Your task to perform on an android device: Open calendar and show me the fourth week of next month Image 0: 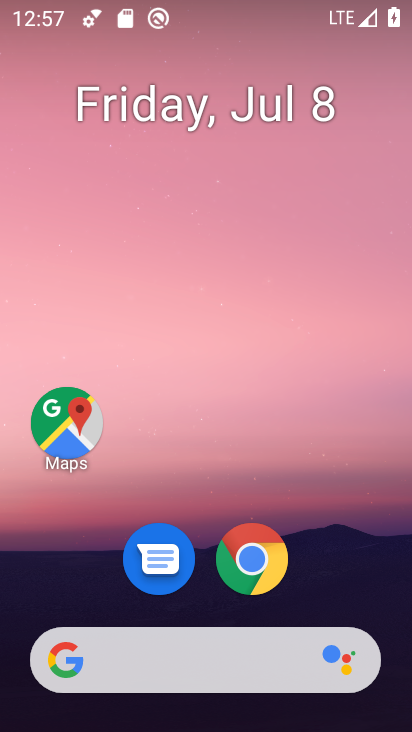
Step 0: drag from (220, 640) to (174, 35)
Your task to perform on an android device: Open calendar and show me the fourth week of next month Image 1: 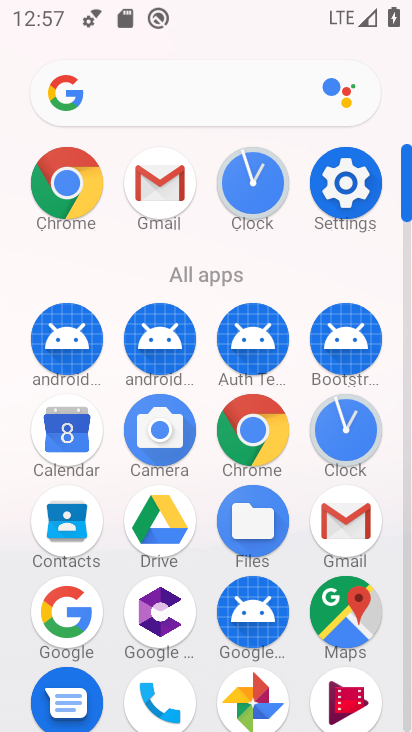
Step 1: click (80, 438)
Your task to perform on an android device: Open calendar and show me the fourth week of next month Image 2: 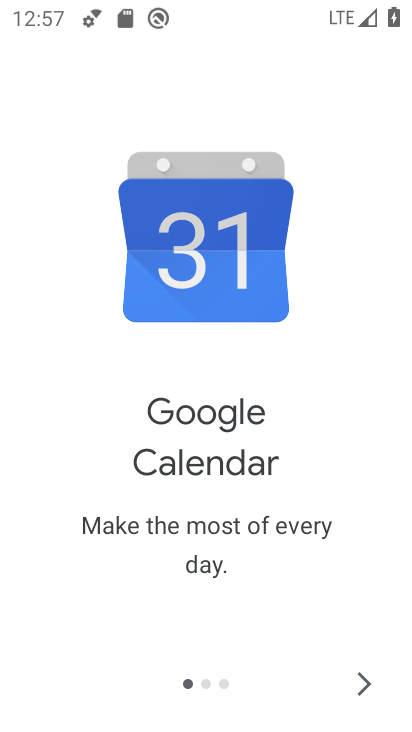
Step 2: click (349, 708)
Your task to perform on an android device: Open calendar and show me the fourth week of next month Image 3: 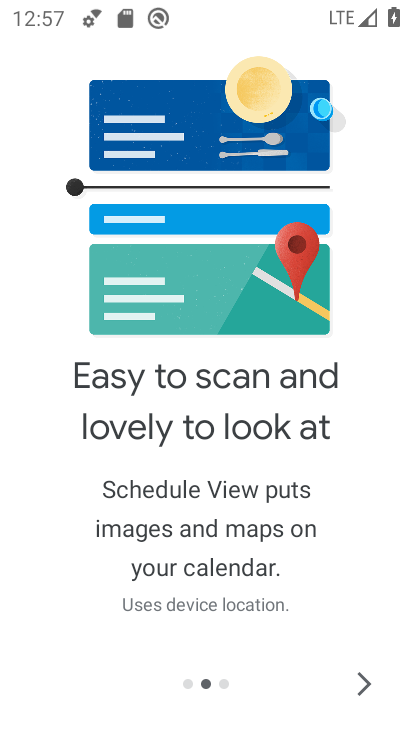
Step 3: click (355, 683)
Your task to perform on an android device: Open calendar and show me the fourth week of next month Image 4: 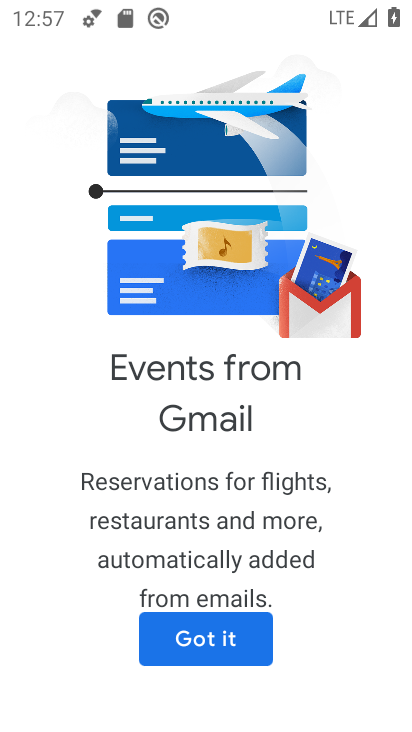
Step 4: click (251, 649)
Your task to perform on an android device: Open calendar and show me the fourth week of next month Image 5: 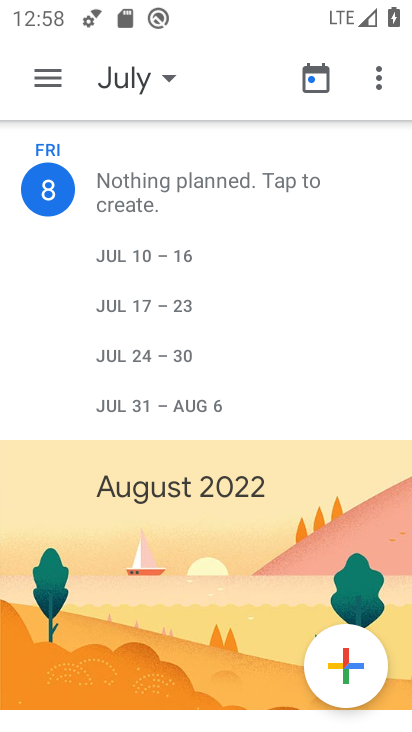
Step 5: click (56, 67)
Your task to perform on an android device: Open calendar and show me the fourth week of next month Image 6: 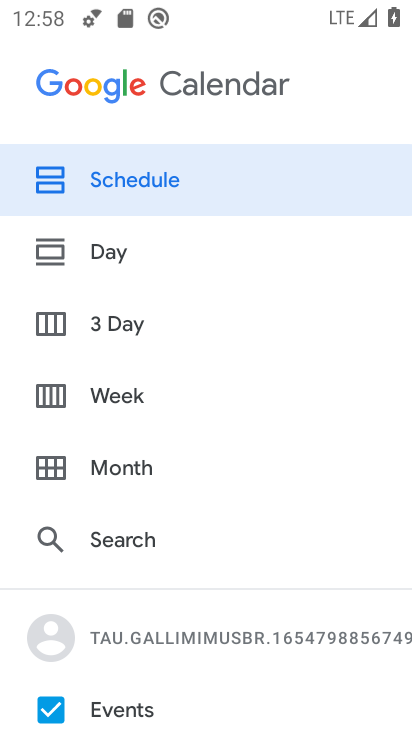
Step 6: click (140, 397)
Your task to perform on an android device: Open calendar and show me the fourth week of next month Image 7: 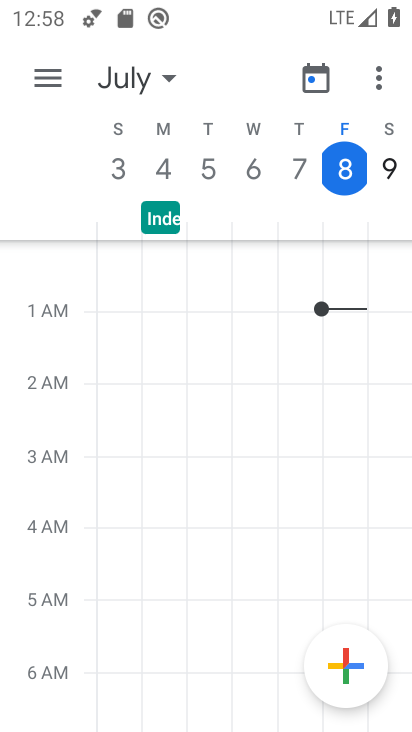
Step 7: task complete